Your task to perform on an android device: install app "Paramount+ | Peak Streaming" Image 0: 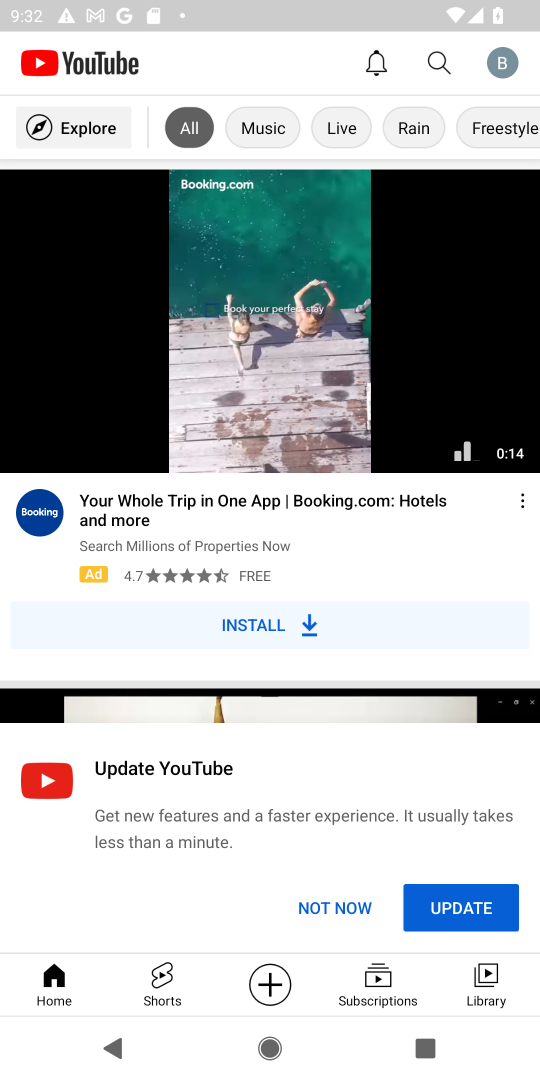
Step 0: press home button
Your task to perform on an android device: install app "Paramount+ | Peak Streaming" Image 1: 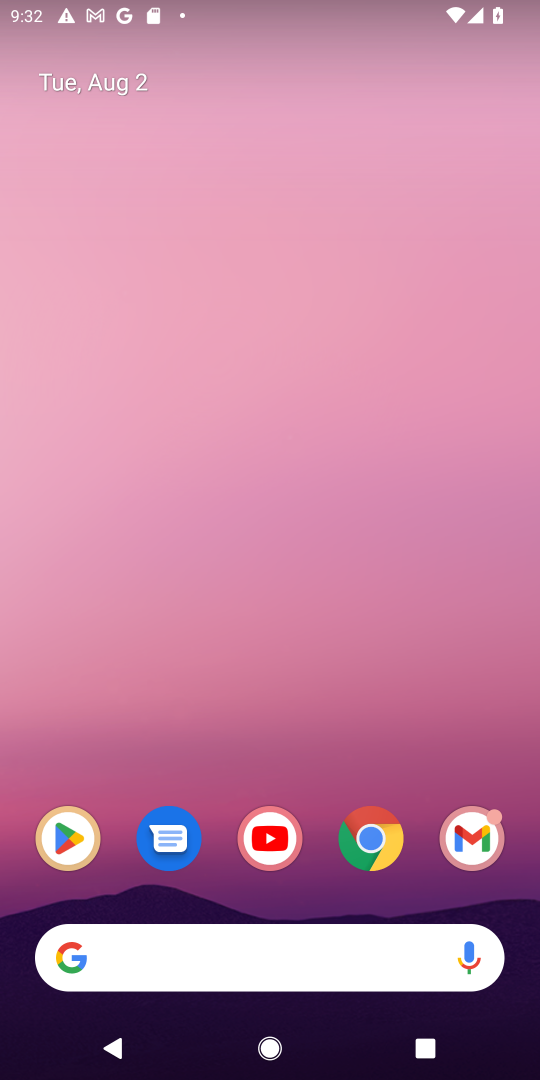
Step 1: drag from (337, 684) to (366, 52)
Your task to perform on an android device: install app "Paramount+ | Peak Streaming" Image 2: 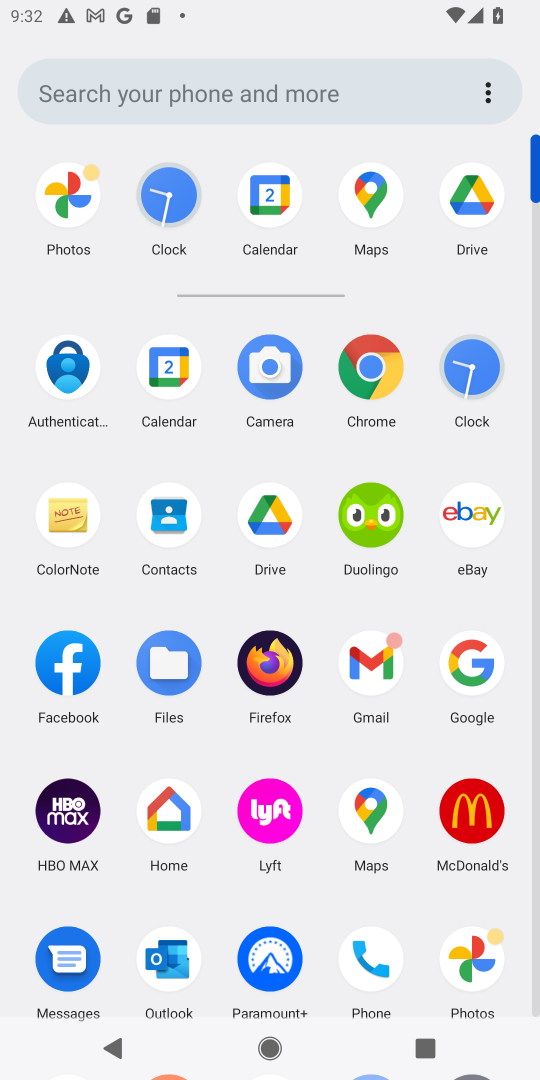
Step 2: drag from (515, 885) to (532, 404)
Your task to perform on an android device: install app "Paramount+ | Peak Streaming" Image 3: 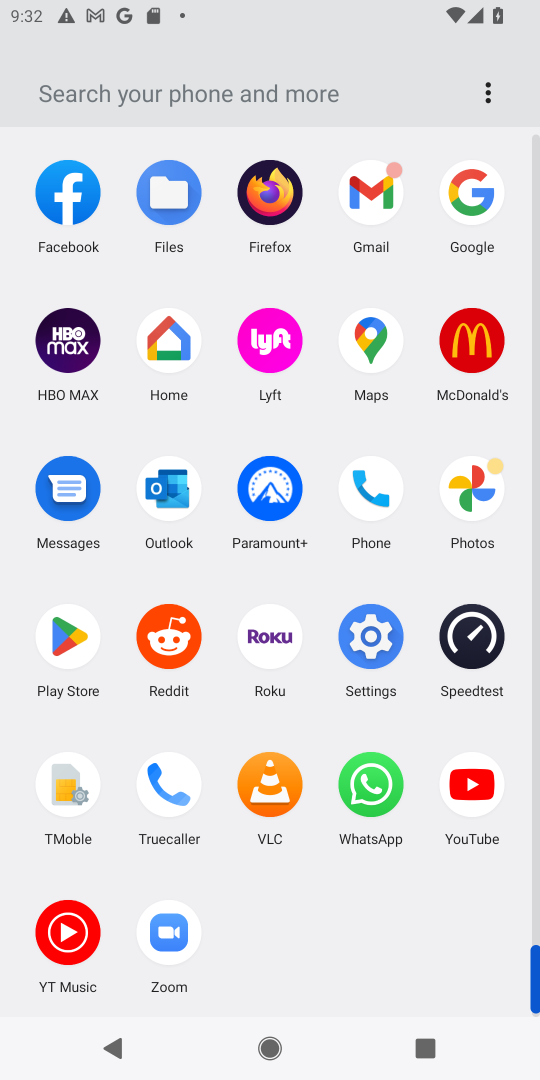
Step 3: click (63, 641)
Your task to perform on an android device: install app "Paramount+ | Peak Streaming" Image 4: 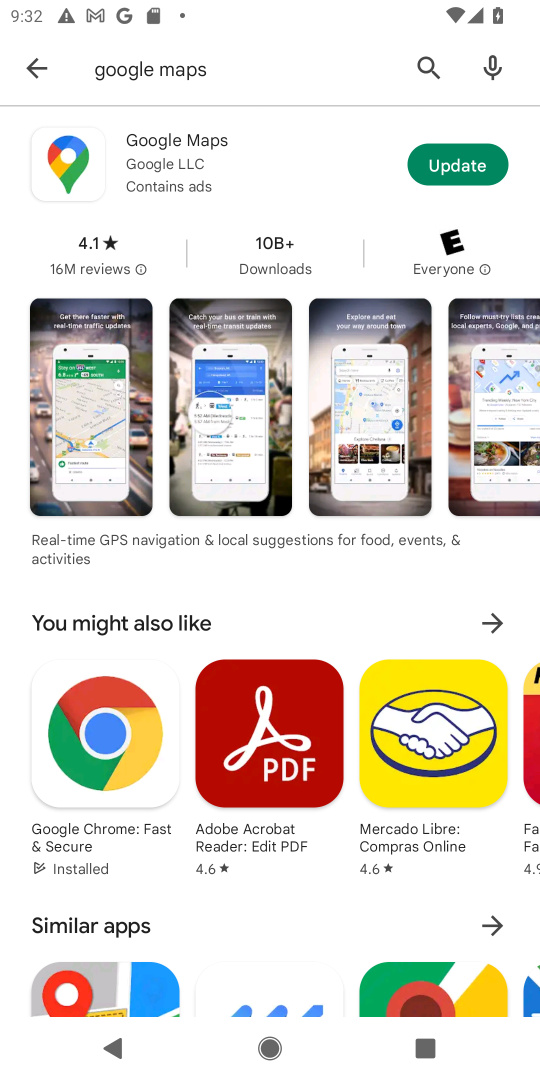
Step 4: click (423, 70)
Your task to perform on an android device: install app "Paramount+ | Peak Streaming" Image 5: 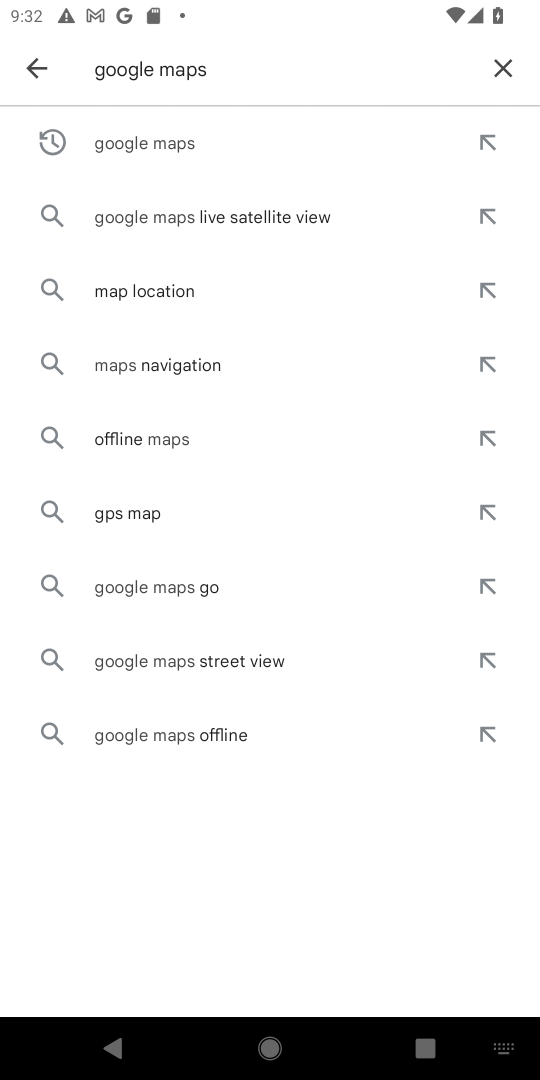
Step 5: click (494, 69)
Your task to perform on an android device: install app "Paramount+ | Peak Streaming" Image 6: 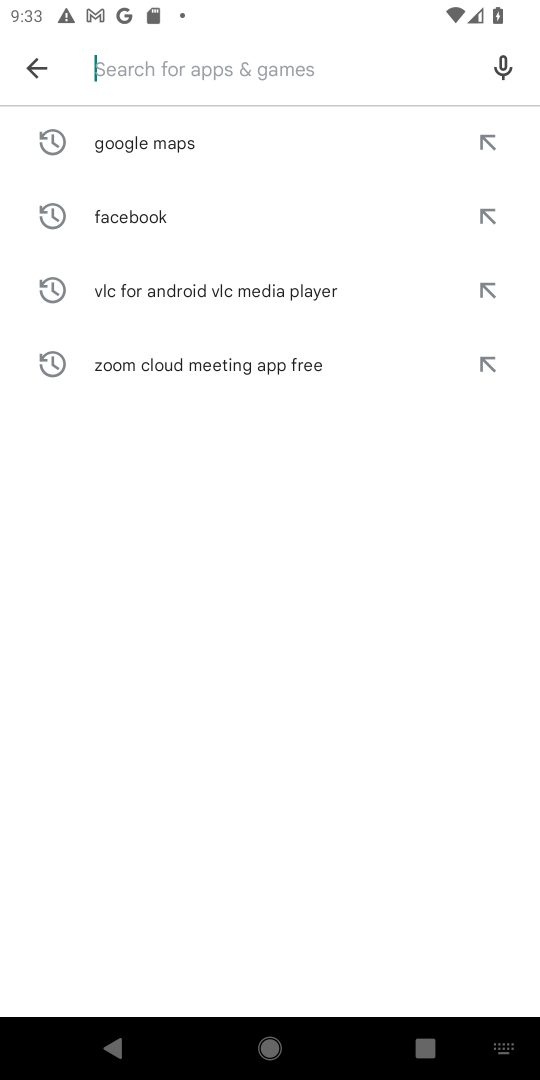
Step 6: type "Paramount+ | Peak Streaming"
Your task to perform on an android device: install app "Paramount+ | Peak Streaming" Image 7: 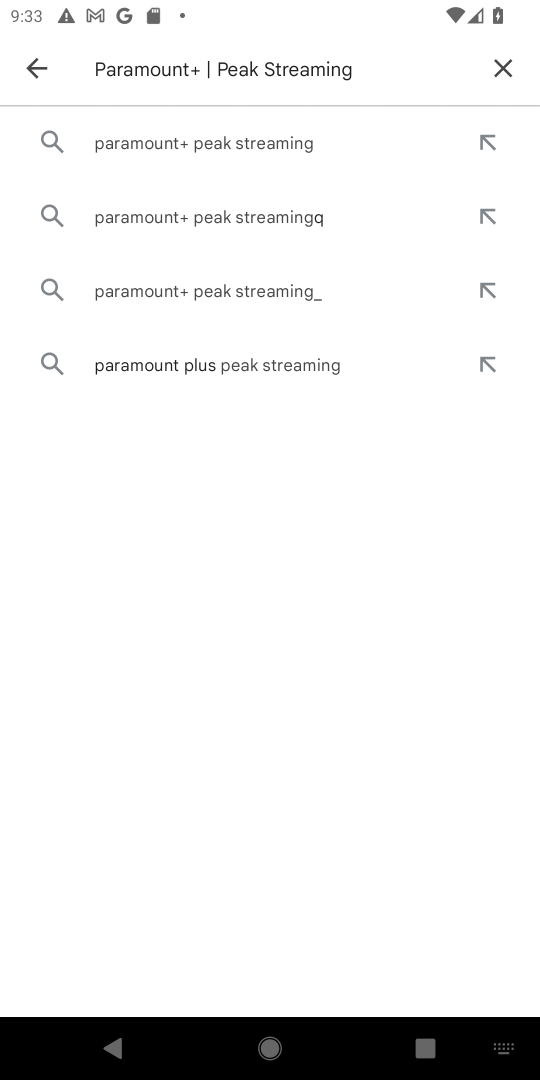
Step 7: click (320, 141)
Your task to perform on an android device: install app "Paramount+ | Peak Streaming" Image 8: 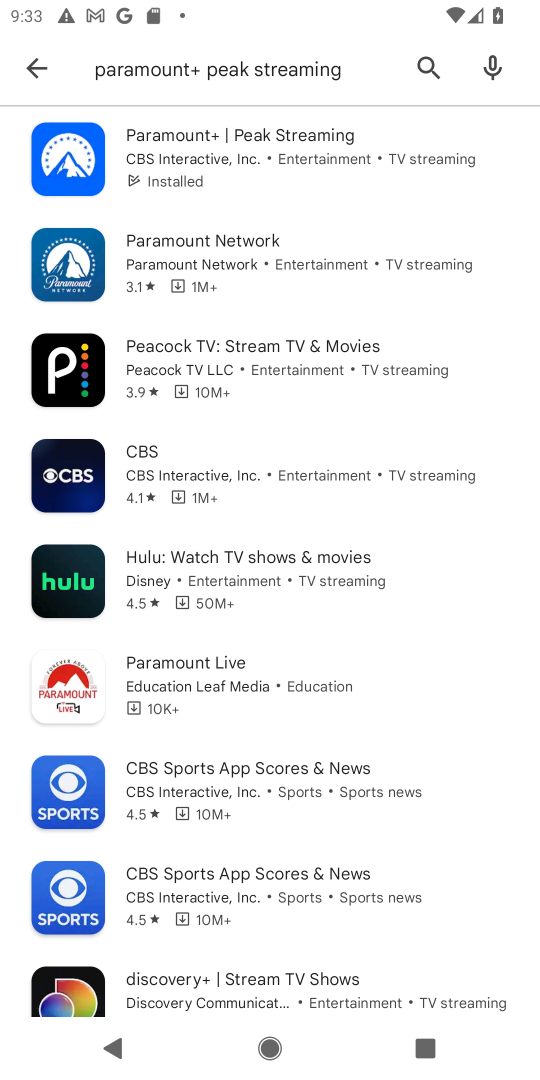
Step 8: task complete